Your task to perform on an android device: change the clock style Image 0: 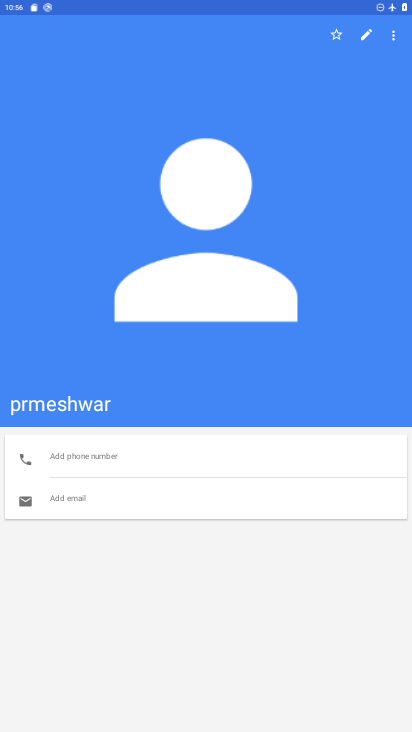
Step 0: press home button
Your task to perform on an android device: change the clock style Image 1: 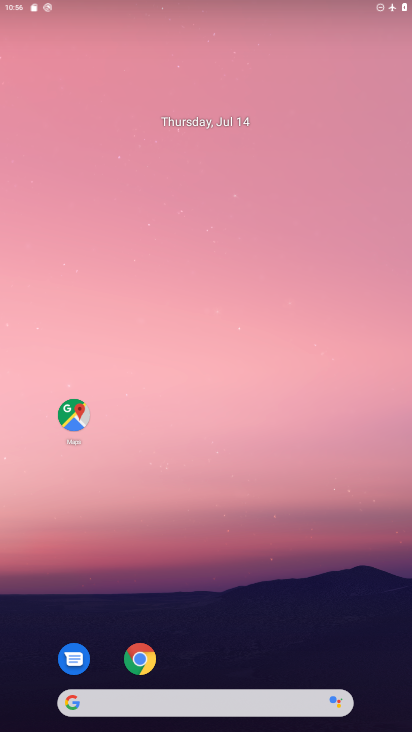
Step 1: drag from (300, 646) to (273, 96)
Your task to perform on an android device: change the clock style Image 2: 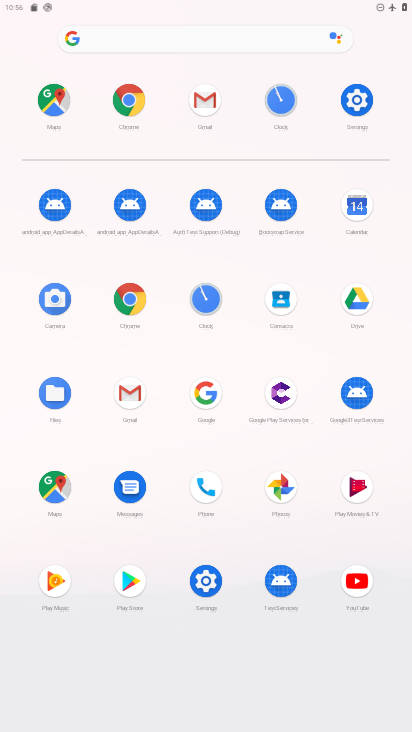
Step 2: click (275, 94)
Your task to perform on an android device: change the clock style Image 3: 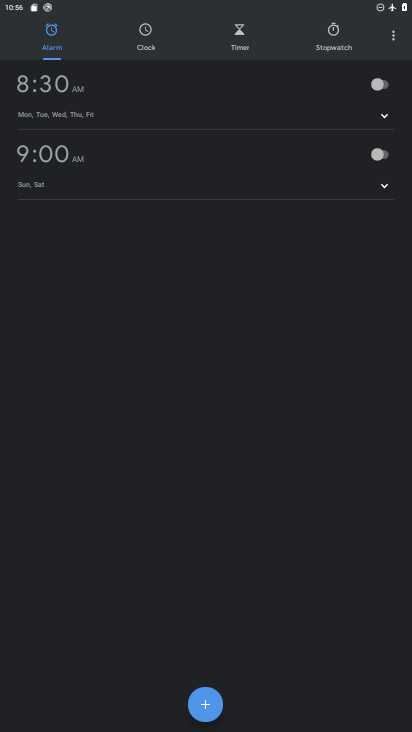
Step 3: click (389, 35)
Your task to perform on an android device: change the clock style Image 4: 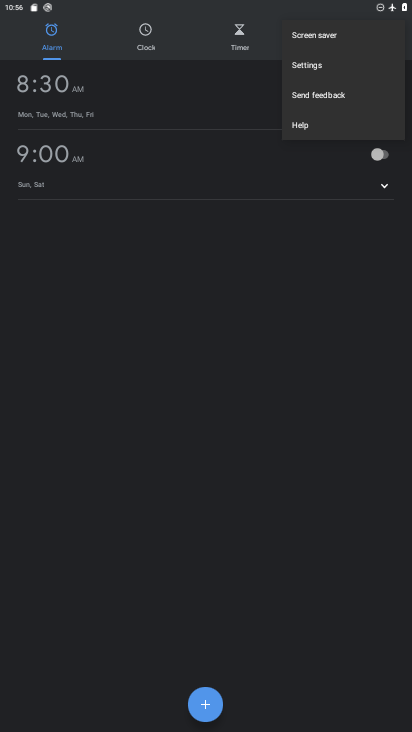
Step 4: click (323, 75)
Your task to perform on an android device: change the clock style Image 5: 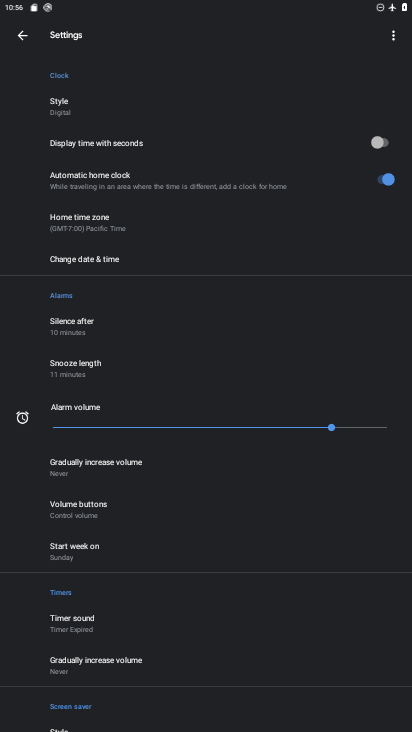
Step 5: click (70, 109)
Your task to perform on an android device: change the clock style Image 6: 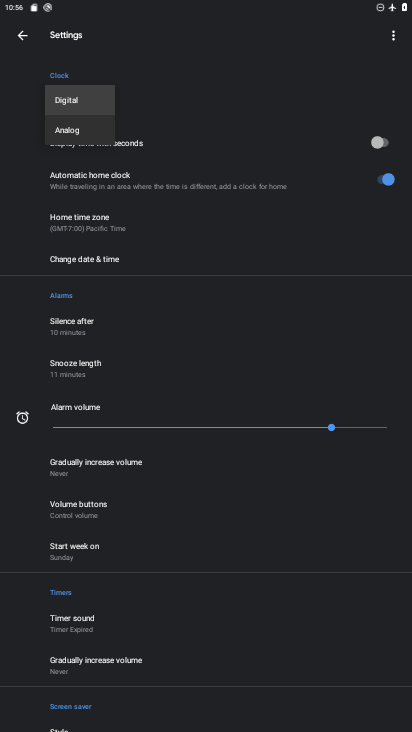
Step 6: click (82, 138)
Your task to perform on an android device: change the clock style Image 7: 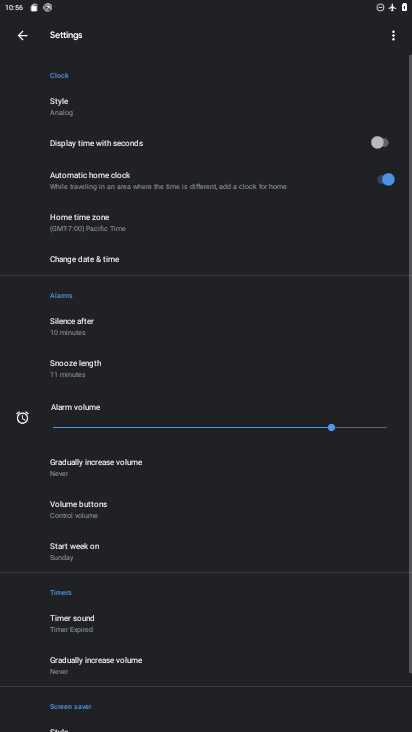
Step 7: task complete